Your task to perform on an android device: turn on the 24-hour format for clock Image 0: 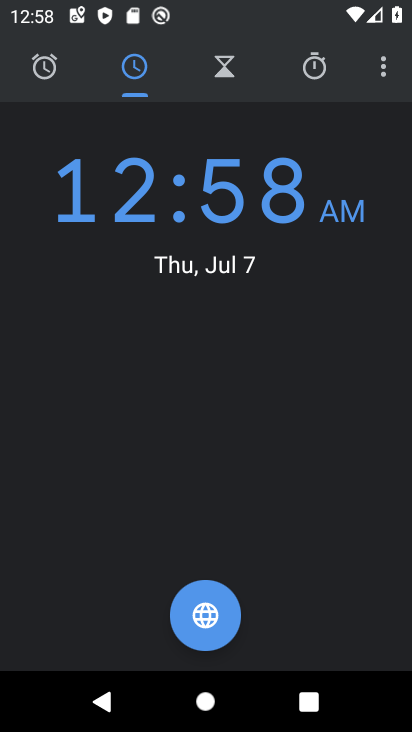
Step 0: click (380, 69)
Your task to perform on an android device: turn on the 24-hour format for clock Image 1: 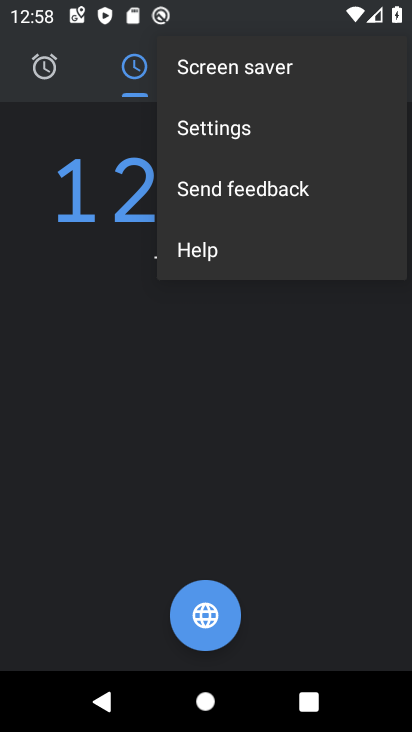
Step 1: click (310, 134)
Your task to perform on an android device: turn on the 24-hour format for clock Image 2: 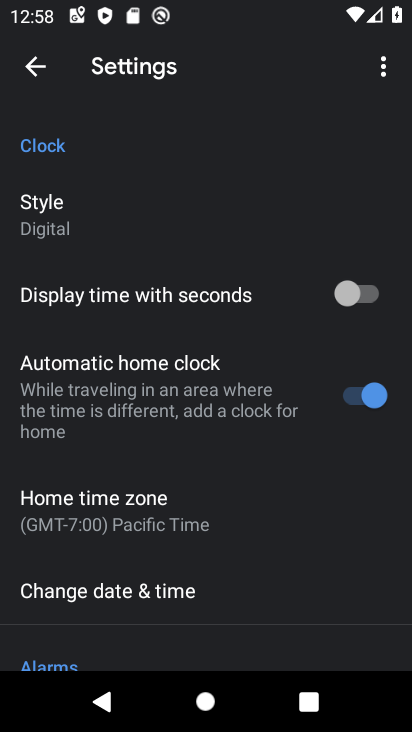
Step 2: drag from (237, 500) to (246, 160)
Your task to perform on an android device: turn on the 24-hour format for clock Image 3: 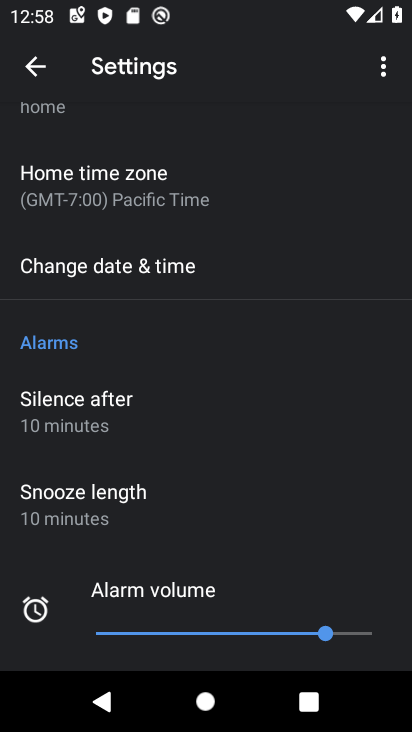
Step 3: click (251, 270)
Your task to perform on an android device: turn on the 24-hour format for clock Image 4: 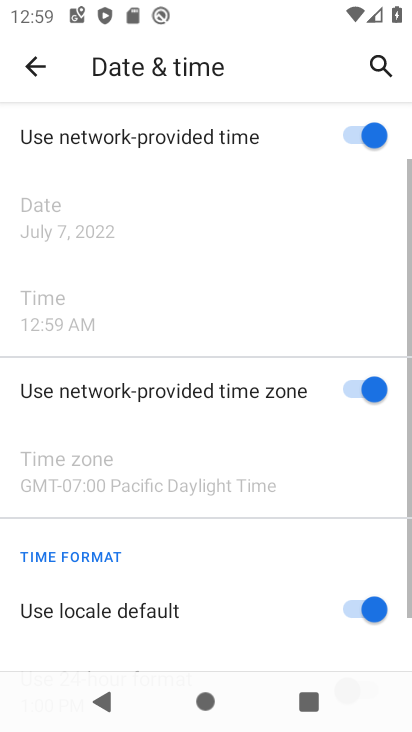
Step 4: drag from (291, 556) to (305, 302)
Your task to perform on an android device: turn on the 24-hour format for clock Image 5: 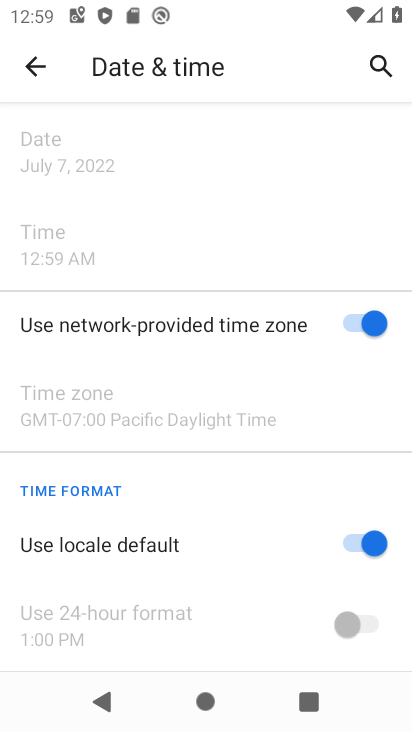
Step 5: click (356, 547)
Your task to perform on an android device: turn on the 24-hour format for clock Image 6: 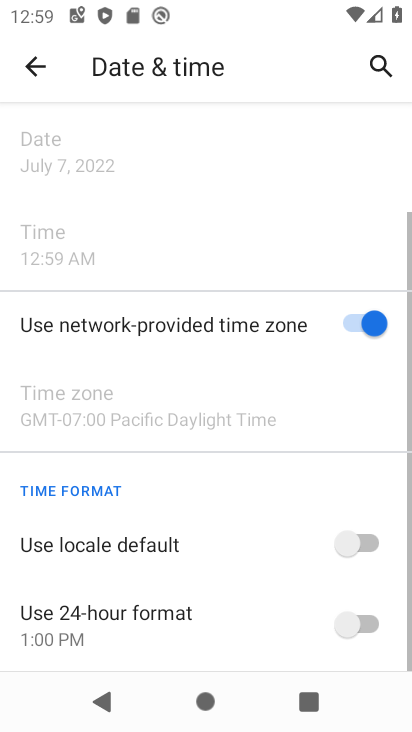
Step 6: click (361, 621)
Your task to perform on an android device: turn on the 24-hour format for clock Image 7: 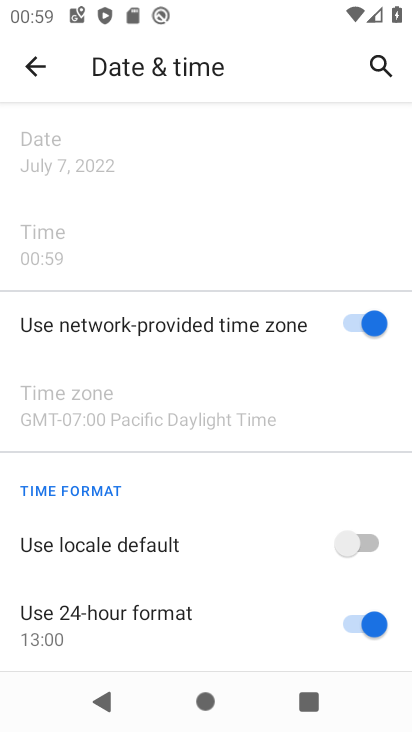
Step 7: task complete